Your task to perform on an android device: Open Wikipedia Image 0: 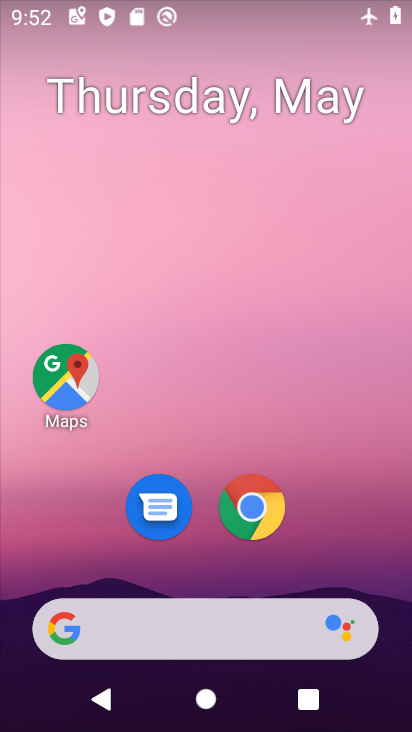
Step 0: drag from (177, 705) to (248, 245)
Your task to perform on an android device: Open Wikipedia Image 1: 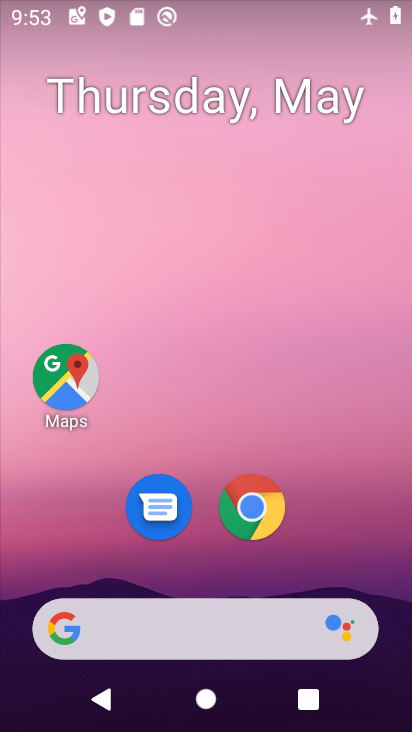
Step 1: click (249, 514)
Your task to perform on an android device: Open Wikipedia Image 2: 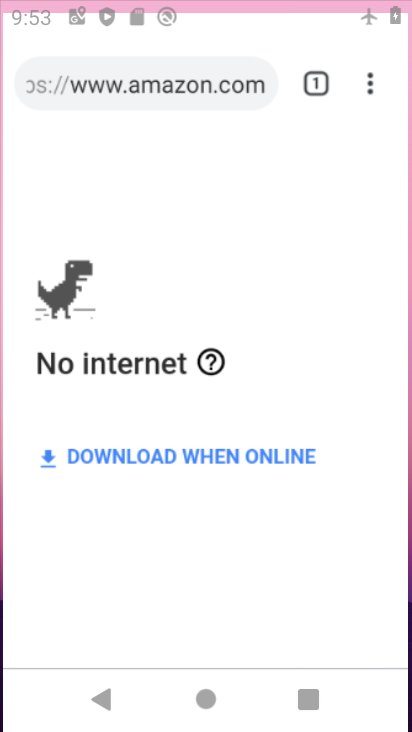
Step 2: click (251, 515)
Your task to perform on an android device: Open Wikipedia Image 3: 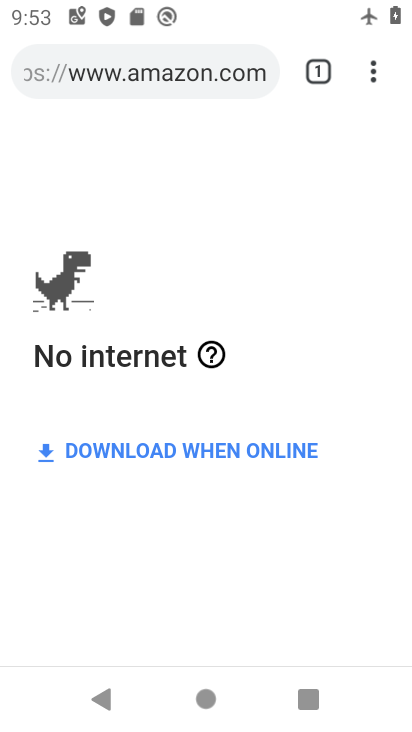
Step 3: task complete